Your task to perform on an android device: check google app version Image 0: 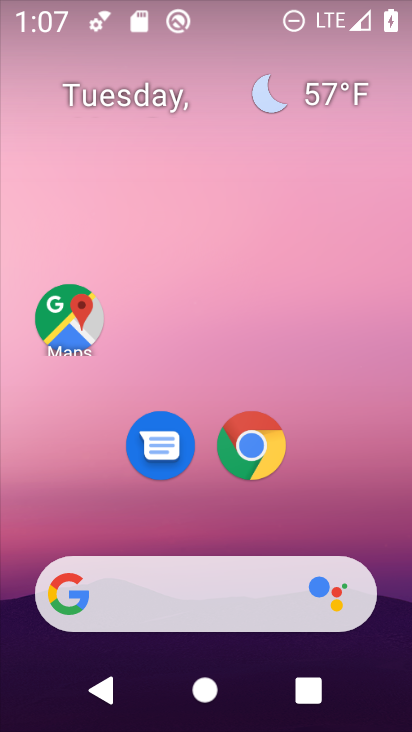
Step 0: drag from (368, 531) to (378, 234)
Your task to perform on an android device: check google app version Image 1: 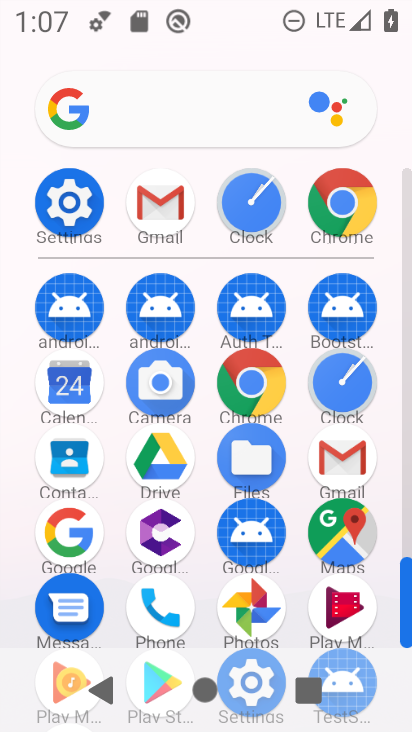
Step 1: drag from (393, 529) to (395, 303)
Your task to perform on an android device: check google app version Image 2: 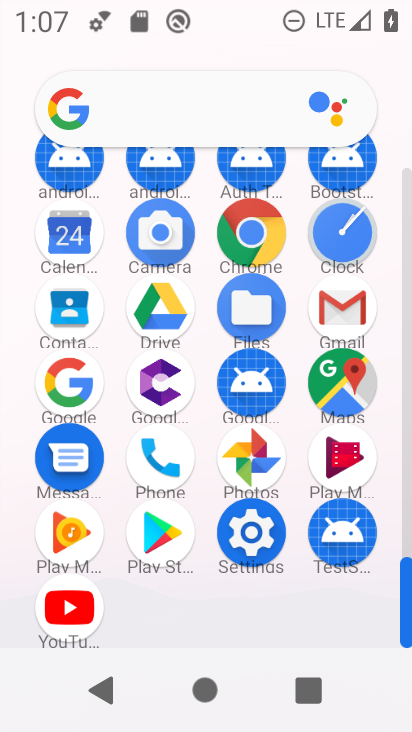
Step 2: click (68, 406)
Your task to perform on an android device: check google app version Image 3: 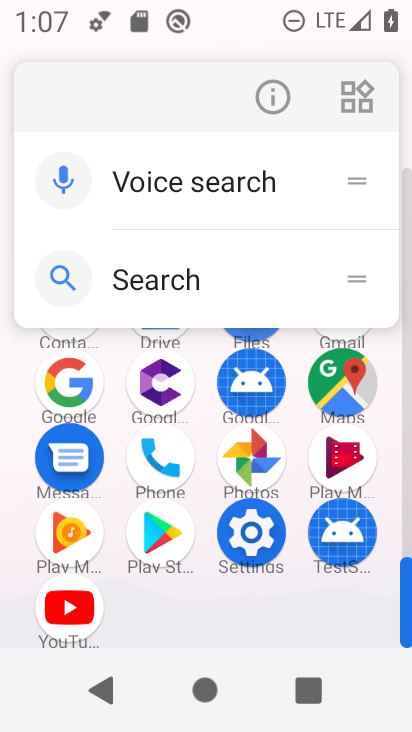
Step 3: click (68, 406)
Your task to perform on an android device: check google app version Image 4: 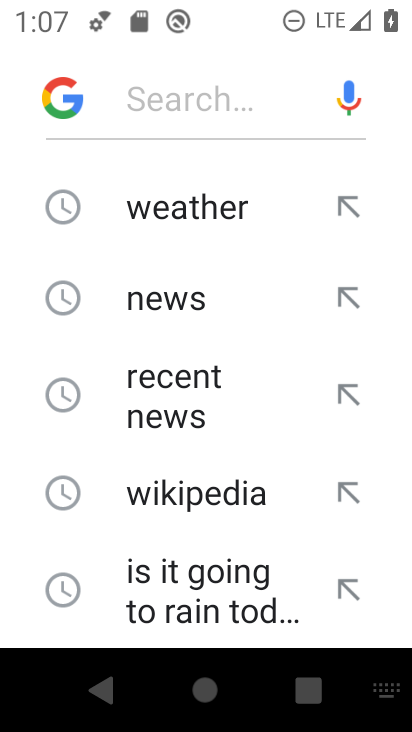
Step 4: press back button
Your task to perform on an android device: check google app version Image 5: 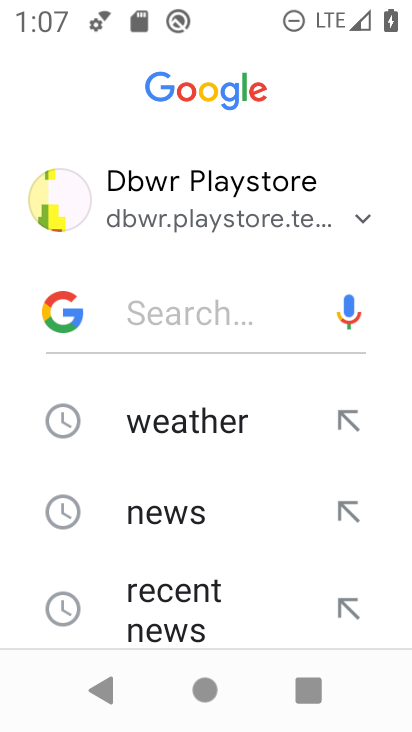
Step 5: press back button
Your task to perform on an android device: check google app version Image 6: 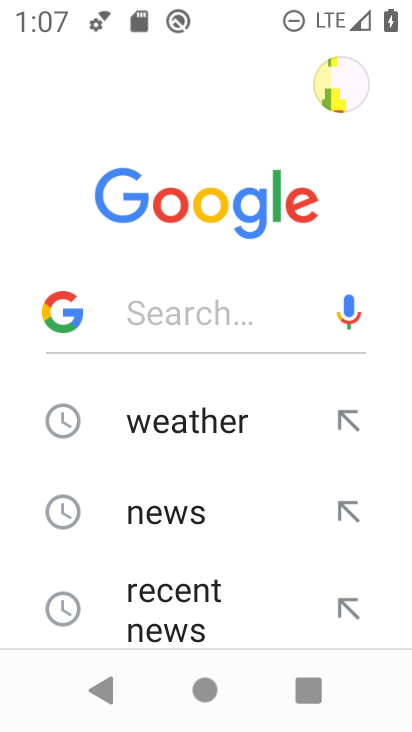
Step 6: press back button
Your task to perform on an android device: check google app version Image 7: 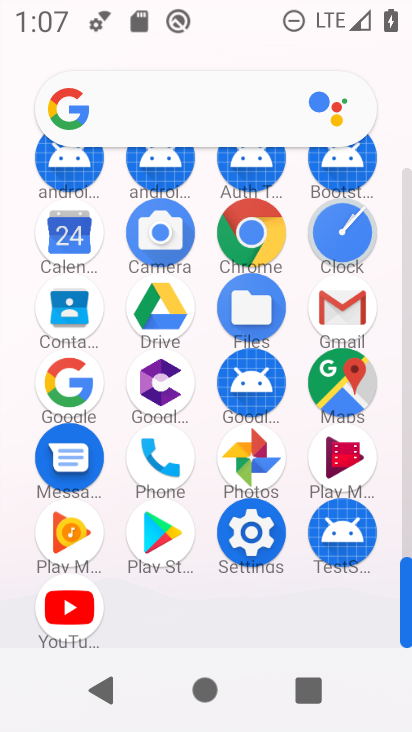
Step 7: click (86, 394)
Your task to perform on an android device: check google app version Image 8: 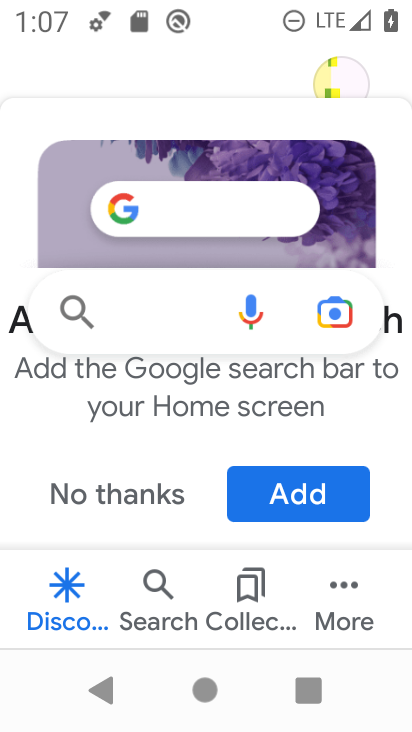
Step 8: click (340, 602)
Your task to perform on an android device: check google app version Image 9: 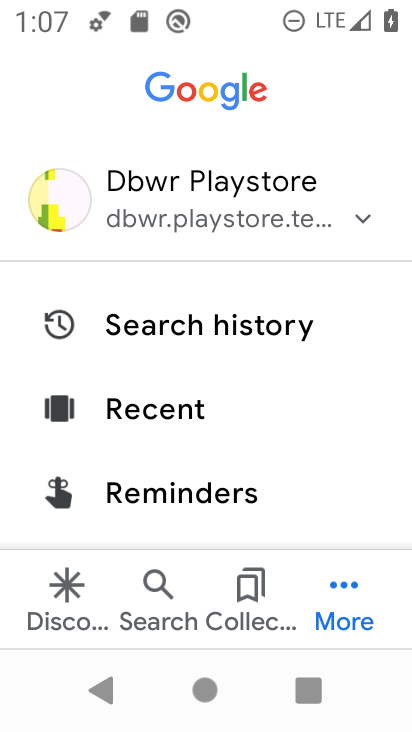
Step 9: drag from (326, 485) to (332, 304)
Your task to perform on an android device: check google app version Image 10: 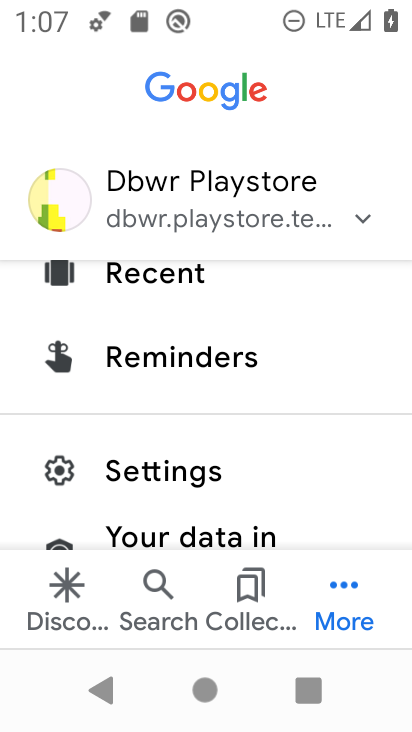
Step 10: click (231, 485)
Your task to perform on an android device: check google app version Image 11: 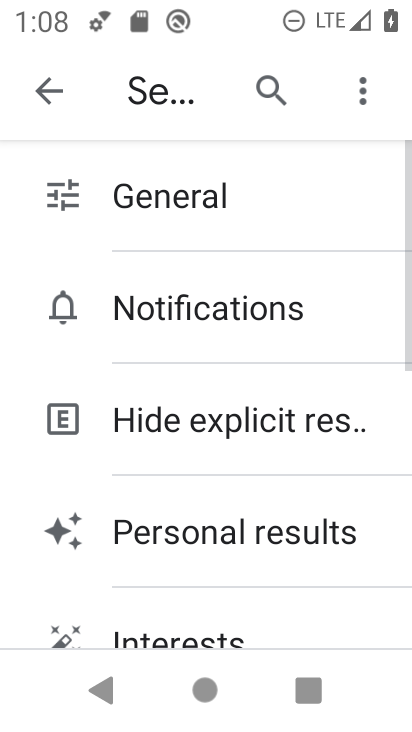
Step 11: drag from (327, 579) to (358, 390)
Your task to perform on an android device: check google app version Image 12: 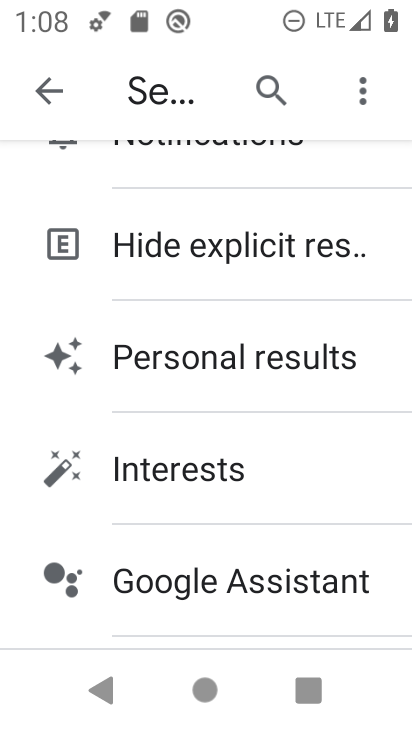
Step 12: drag from (370, 632) to (370, 396)
Your task to perform on an android device: check google app version Image 13: 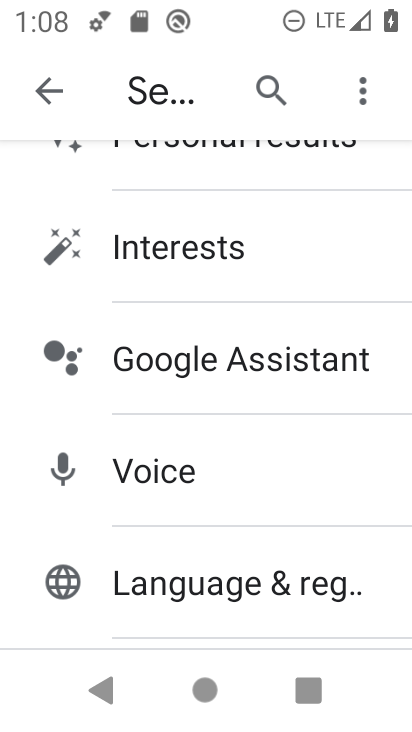
Step 13: drag from (349, 614) to (359, 428)
Your task to perform on an android device: check google app version Image 14: 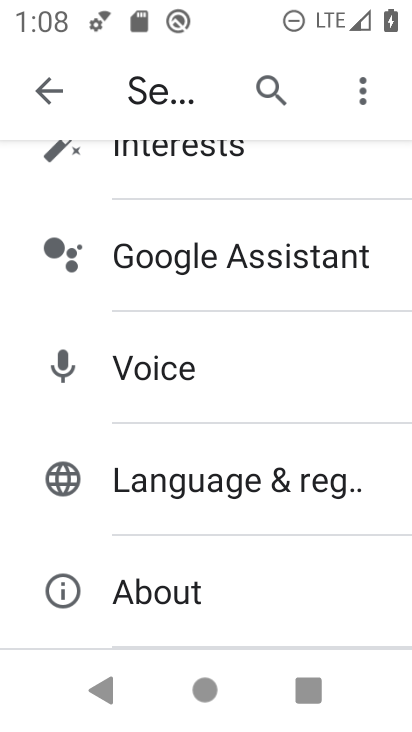
Step 14: click (263, 603)
Your task to perform on an android device: check google app version Image 15: 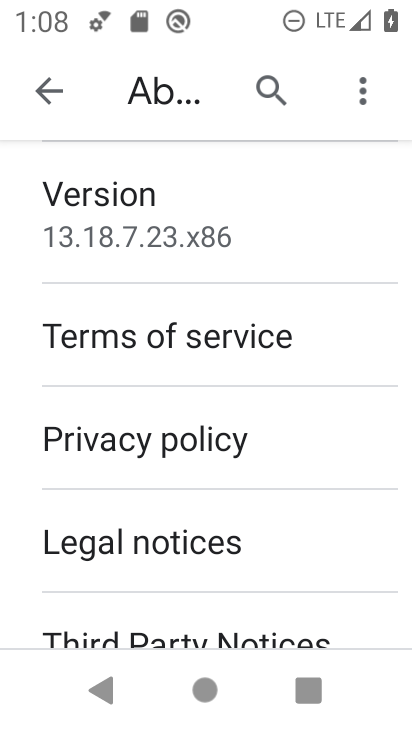
Step 15: task complete